Your task to perform on an android device: stop showing notifications on the lock screen Image 0: 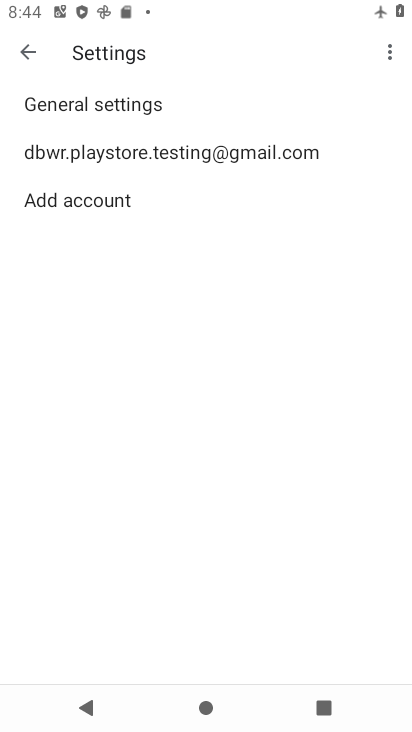
Step 0: press home button
Your task to perform on an android device: stop showing notifications on the lock screen Image 1: 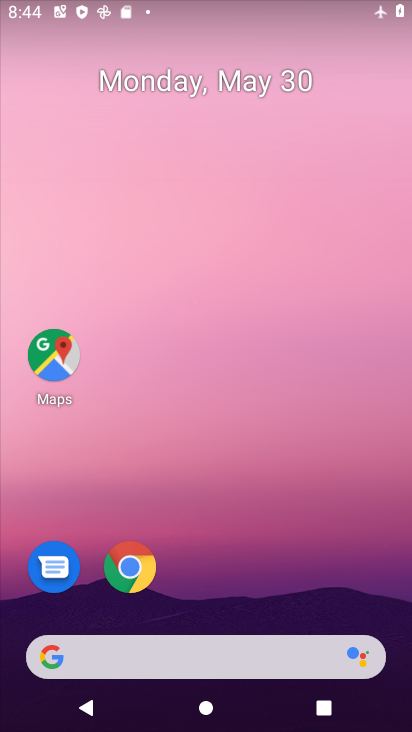
Step 1: task complete